Your task to perform on an android device: Go to settings Image 0: 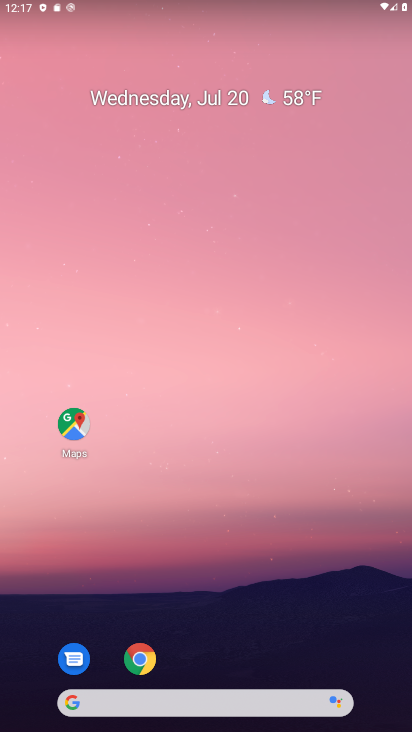
Step 0: press home button
Your task to perform on an android device: Go to settings Image 1: 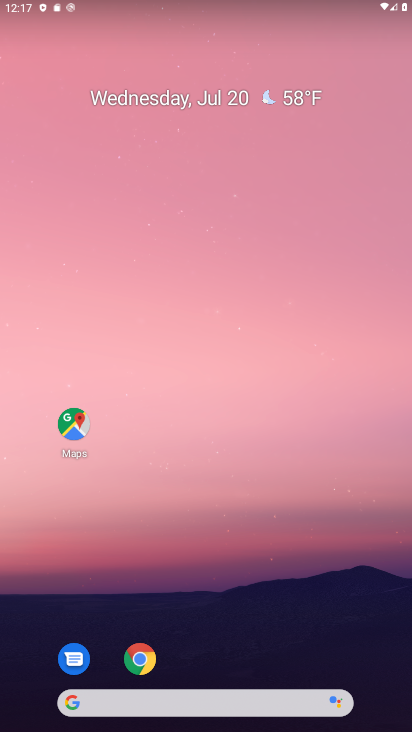
Step 1: drag from (197, 671) to (216, 34)
Your task to perform on an android device: Go to settings Image 2: 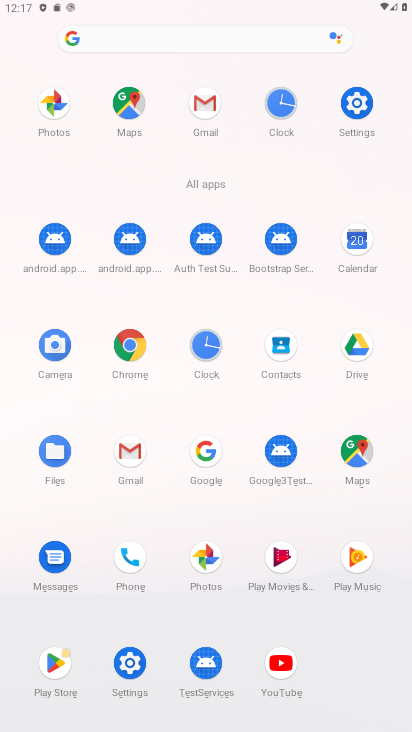
Step 2: click (353, 97)
Your task to perform on an android device: Go to settings Image 3: 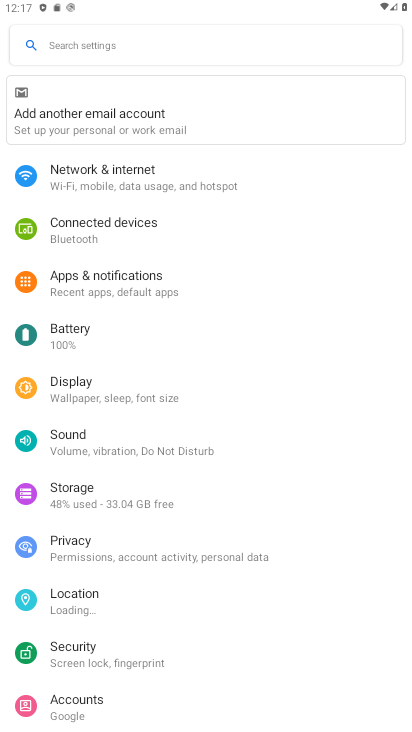
Step 3: task complete